Your task to perform on an android device: turn on bluetooth scan Image 0: 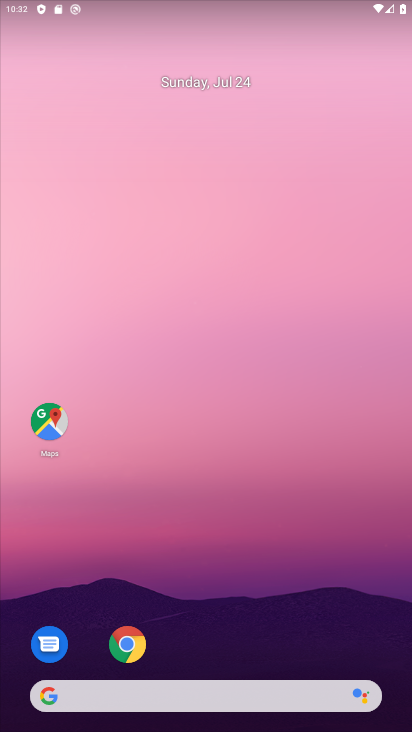
Step 0: drag from (283, 681) to (288, 5)
Your task to perform on an android device: turn on bluetooth scan Image 1: 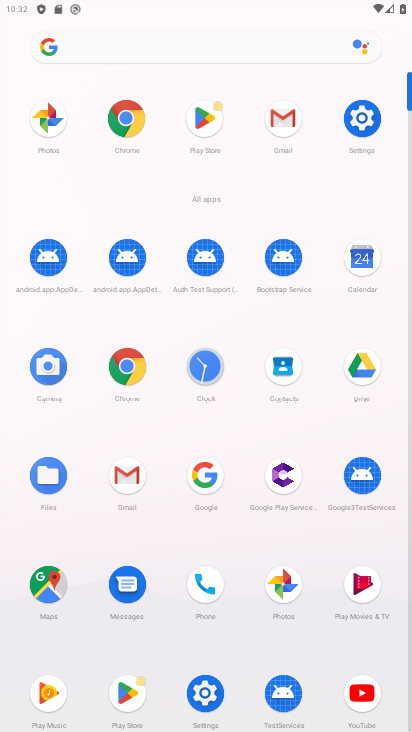
Step 1: click (368, 131)
Your task to perform on an android device: turn on bluetooth scan Image 2: 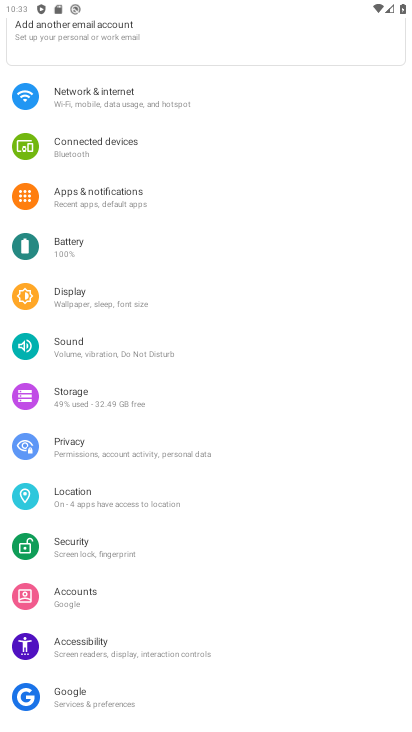
Step 2: click (58, 498)
Your task to perform on an android device: turn on bluetooth scan Image 3: 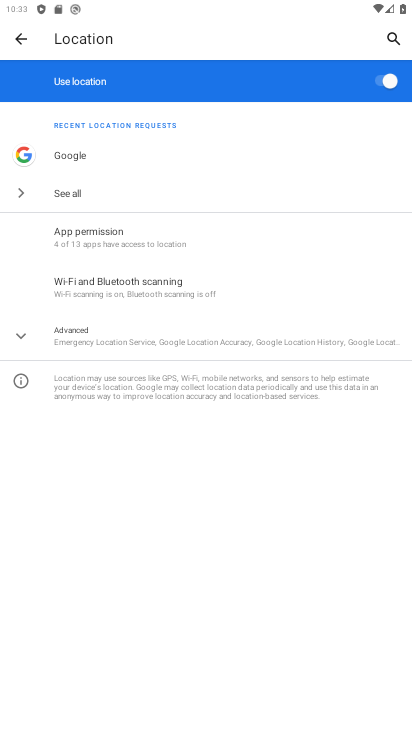
Step 3: click (21, 339)
Your task to perform on an android device: turn on bluetooth scan Image 4: 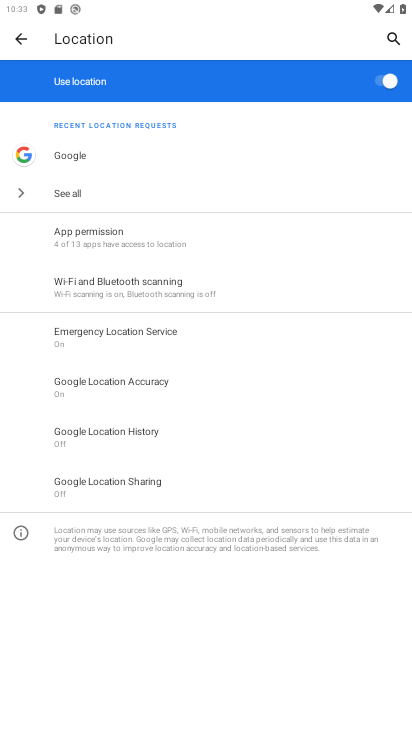
Step 4: click (127, 297)
Your task to perform on an android device: turn on bluetooth scan Image 5: 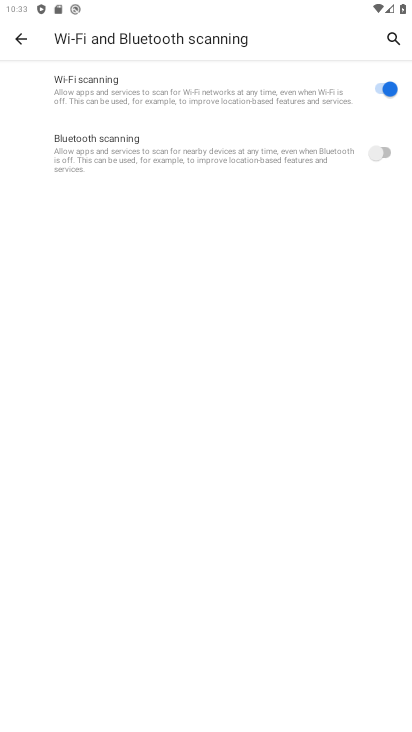
Step 5: click (381, 152)
Your task to perform on an android device: turn on bluetooth scan Image 6: 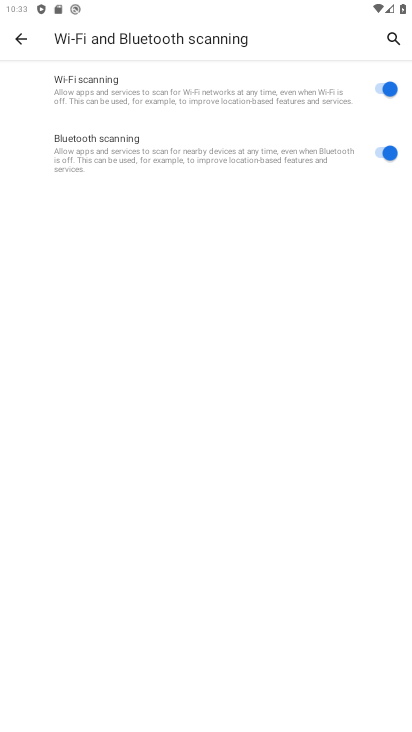
Step 6: task complete